Your task to perform on an android device: turn on data saver in the chrome app Image 0: 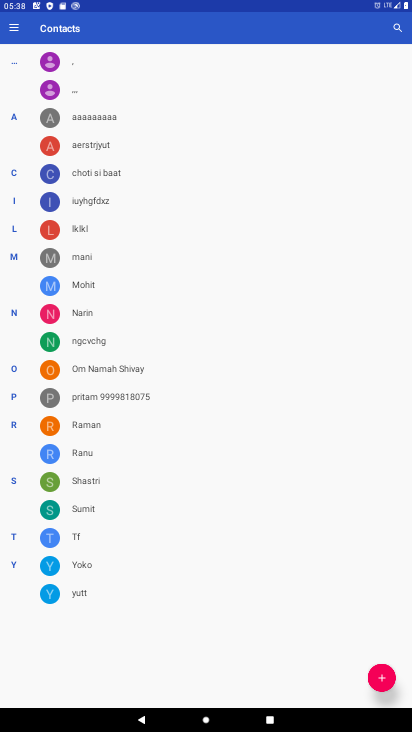
Step 0: press home button
Your task to perform on an android device: turn on data saver in the chrome app Image 1: 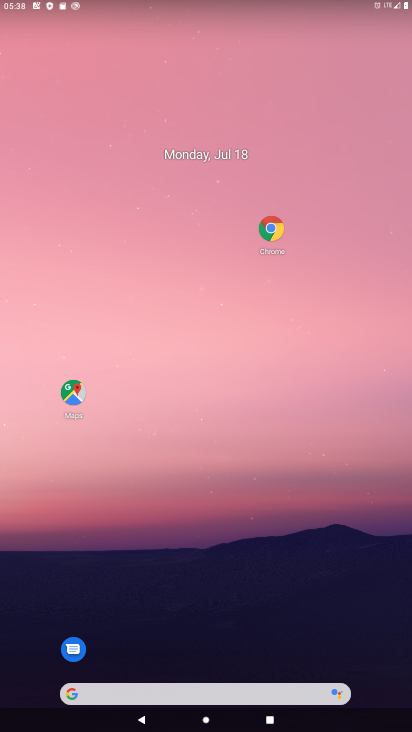
Step 1: click (278, 218)
Your task to perform on an android device: turn on data saver in the chrome app Image 2: 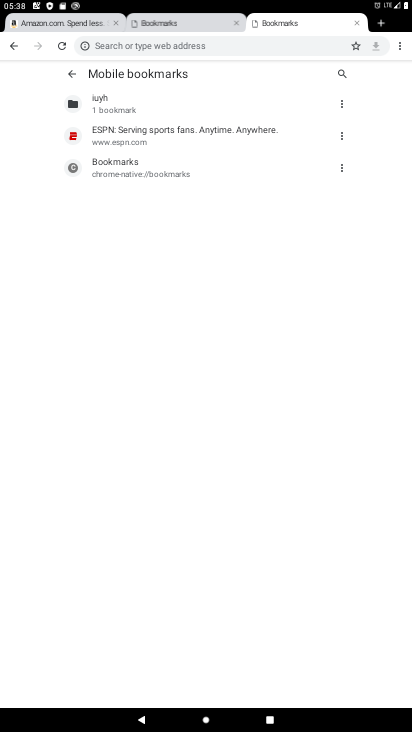
Step 2: click (402, 44)
Your task to perform on an android device: turn on data saver in the chrome app Image 3: 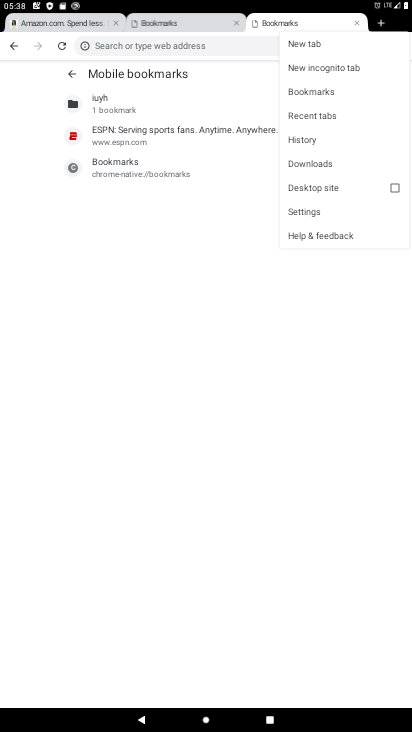
Step 3: click (346, 216)
Your task to perform on an android device: turn on data saver in the chrome app Image 4: 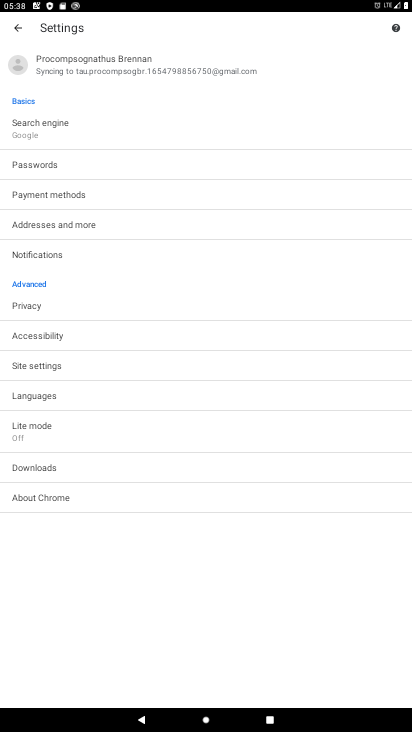
Step 4: click (61, 364)
Your task to perform on an android device: turn on data saver in the chrome app Image 5: 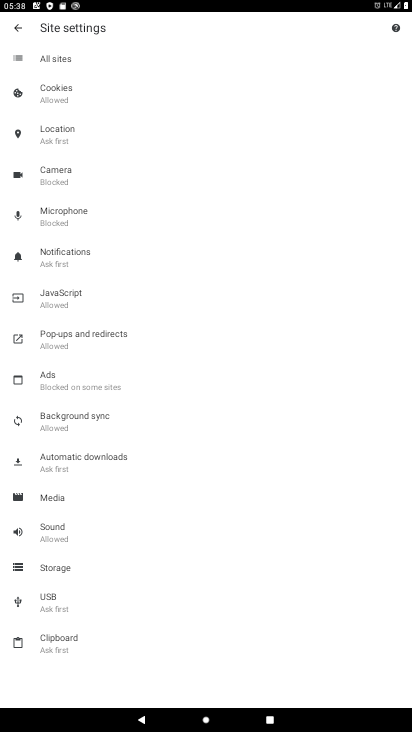
Step 5: click (10, 25)
Your task to perform on an android device: turn on data saver in the chrome app Image 6: 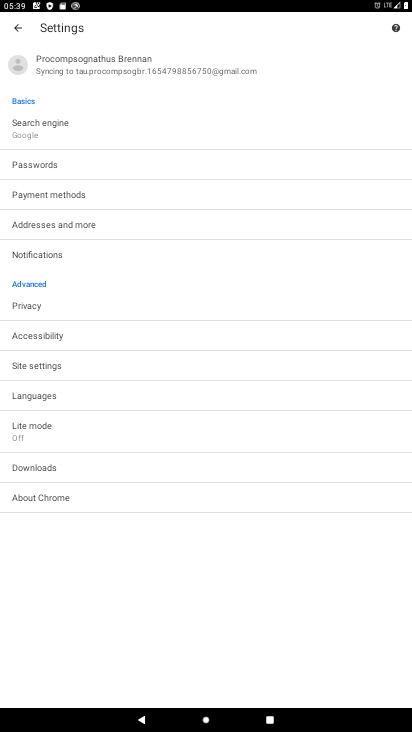
Step 6: click (75, 417)
Your task to perform on an android device: turn on data saver in the chrome app Image 7: 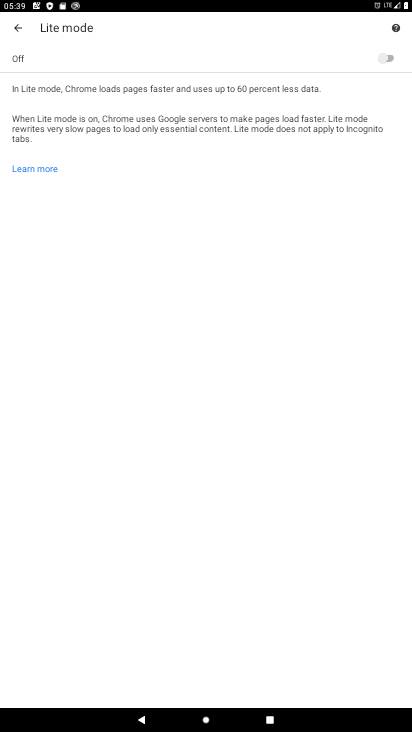
Step 7: click (392, 59)
Your task to perform on an android device: turn on data saver in the chrome app Image 8: 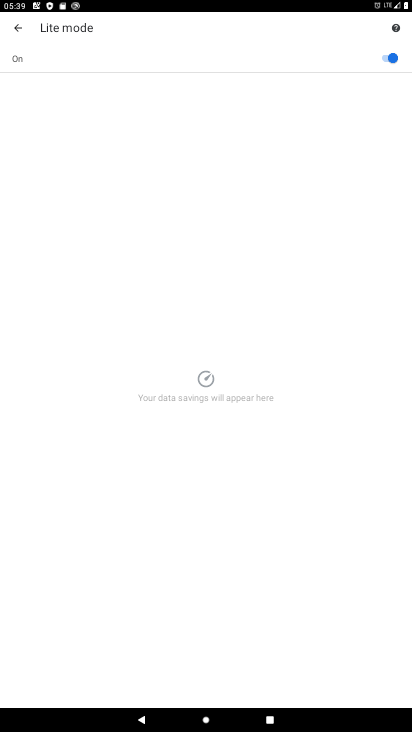
Step 8: task complete